Your task to perform on an android device: What's the weather going to be this weekend? Image 0: 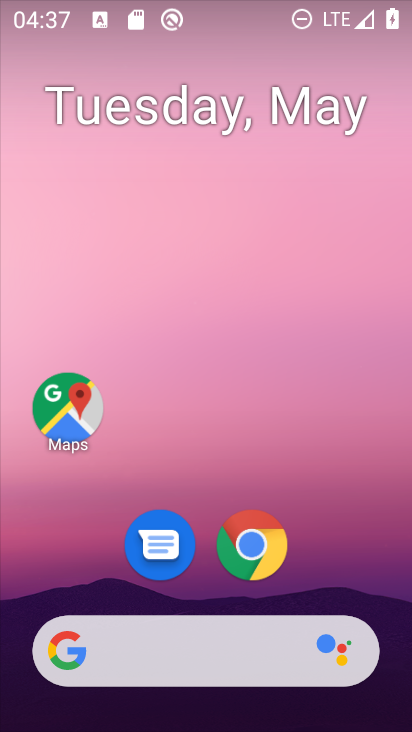
Step 0: click (189, 651)
Your task to perform on an android device: What's the weather going to be this weekend? Image 1: 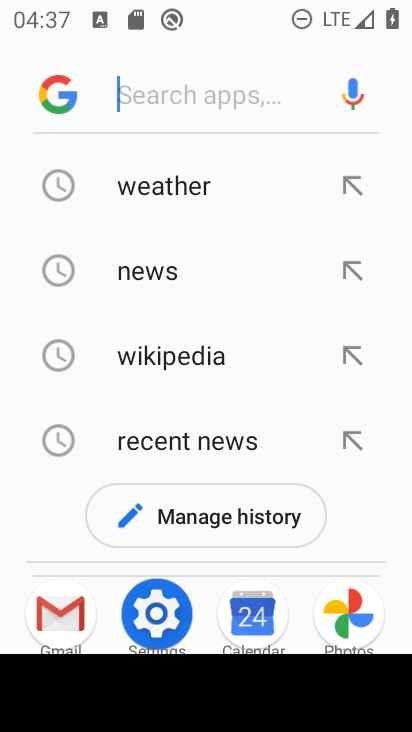
Step 1: click (168, 186)
Your task to perform on an android device: What's the weather going to be this weekend? Image 2: 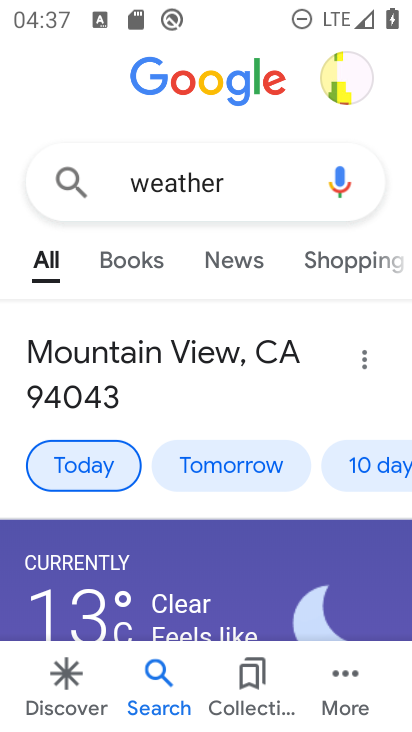
Step 2: click (379, 464)
Your task to perform on an android device: What's the weather going to be this weekend? Image 3: 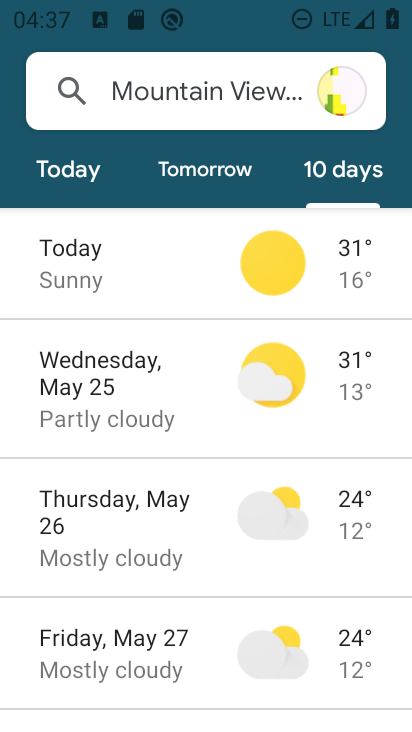
Step 3: task complete